Your task to perform on an android device: Search for "dell xps" on walmart.com, select the first entry, and add it to the cart. Image 0: 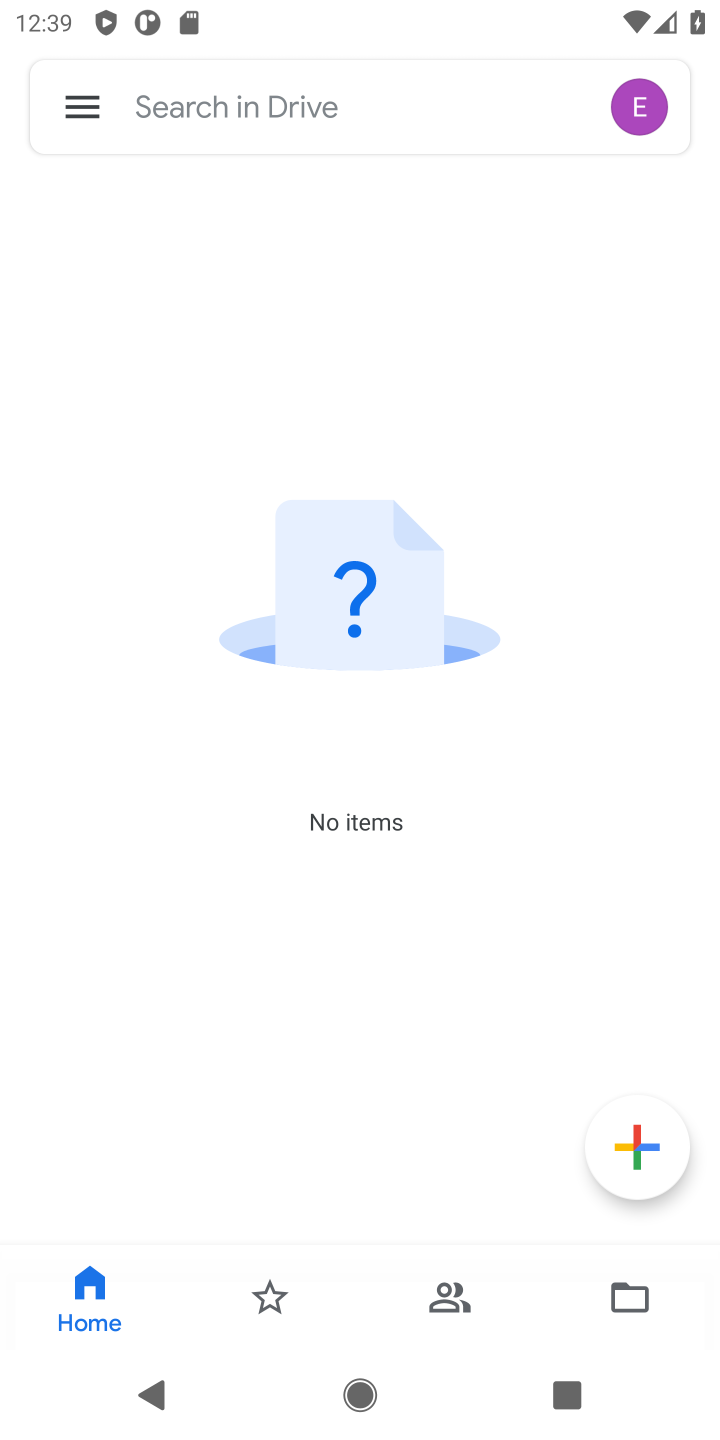
Step 0: press home button
Your task to perform on an android device: Search for "dell xps" on walmart.com, select the first entry, and add it to the cart. Image 1: 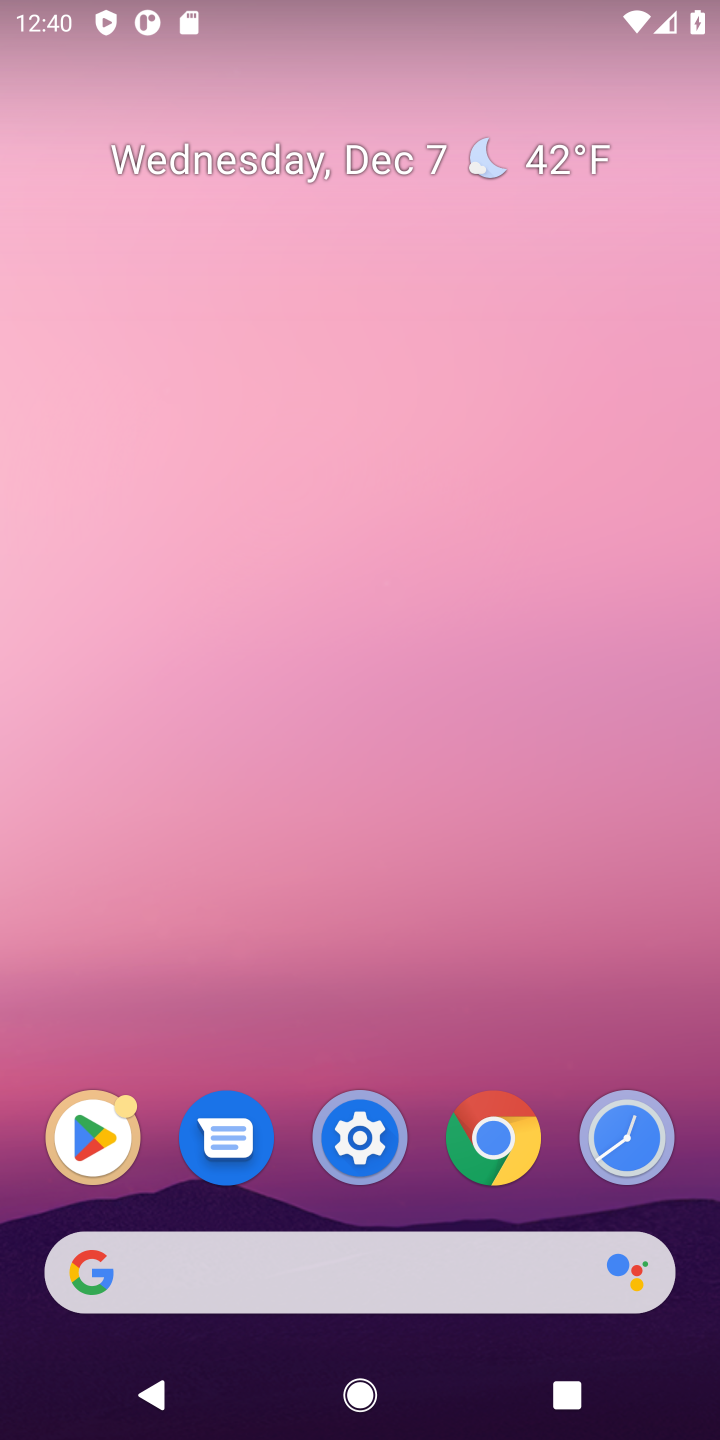
Step 1: click (420, 1243)
Your task to perform on an android device: Search for "dell xps" on walmart.com, select the first entry, and add it to the cart. Image 2: 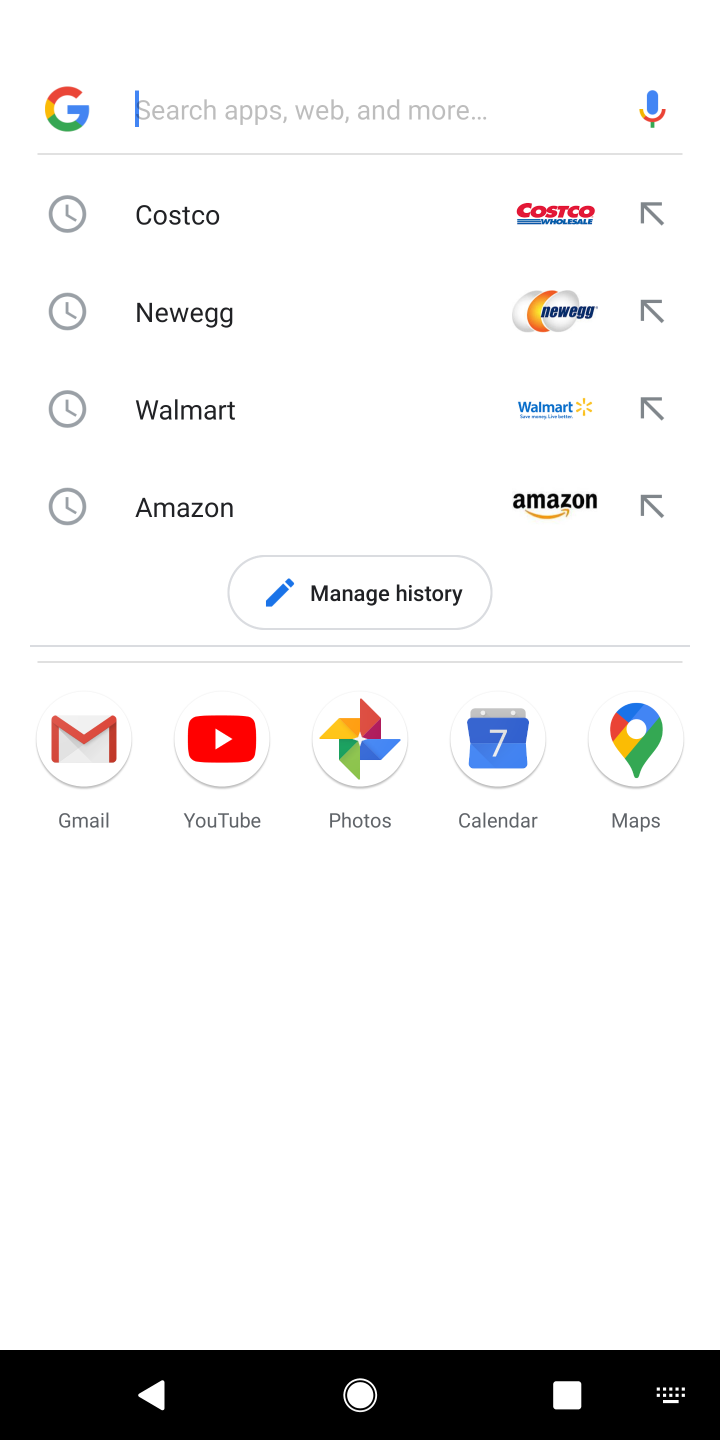
Step 2: type "walmart"
Your task to perform on an android device: Search for "dell xps" on walmart.com, select the first entry, and add it to the cart. Image 3: 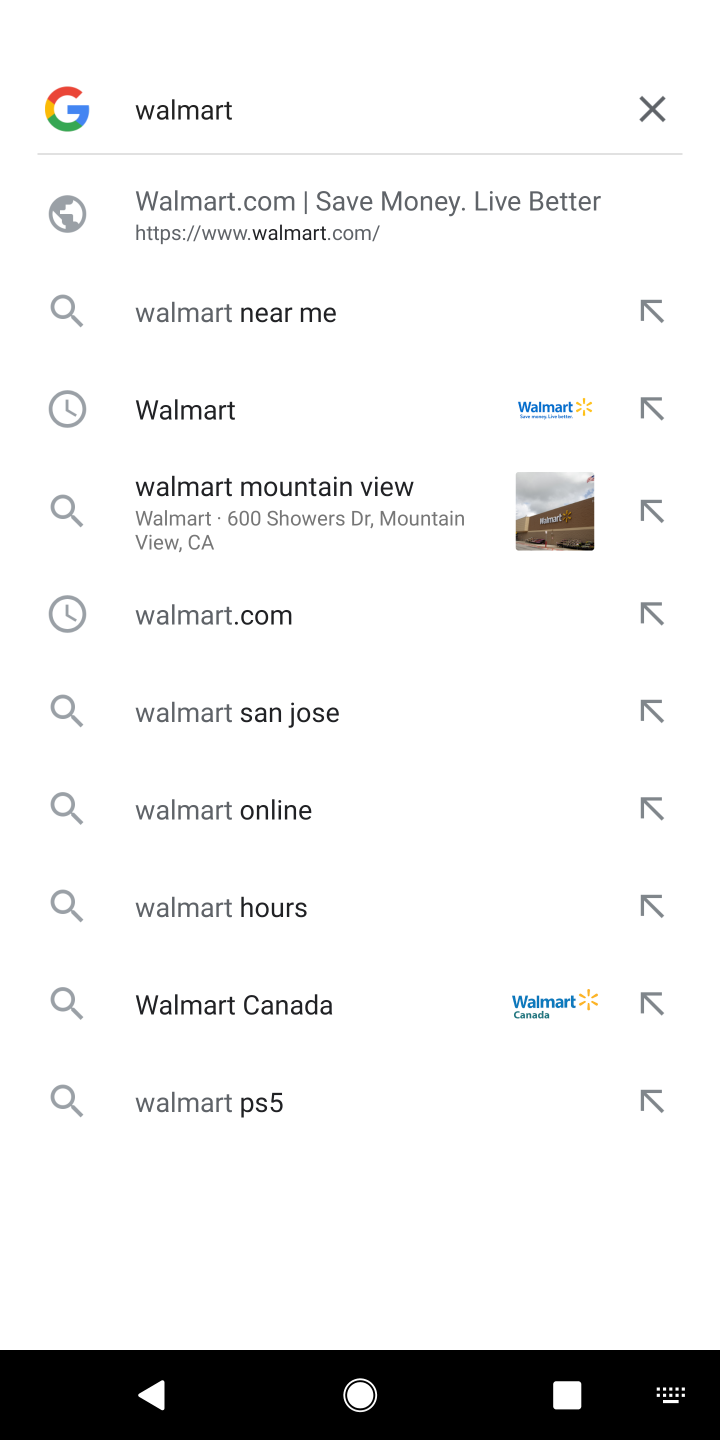
Step 3: click (198, 219)
Your task to perform on an android device: Search for "dell xps" on walmart.com, select the first entry, and add it to the cart. Image 4: 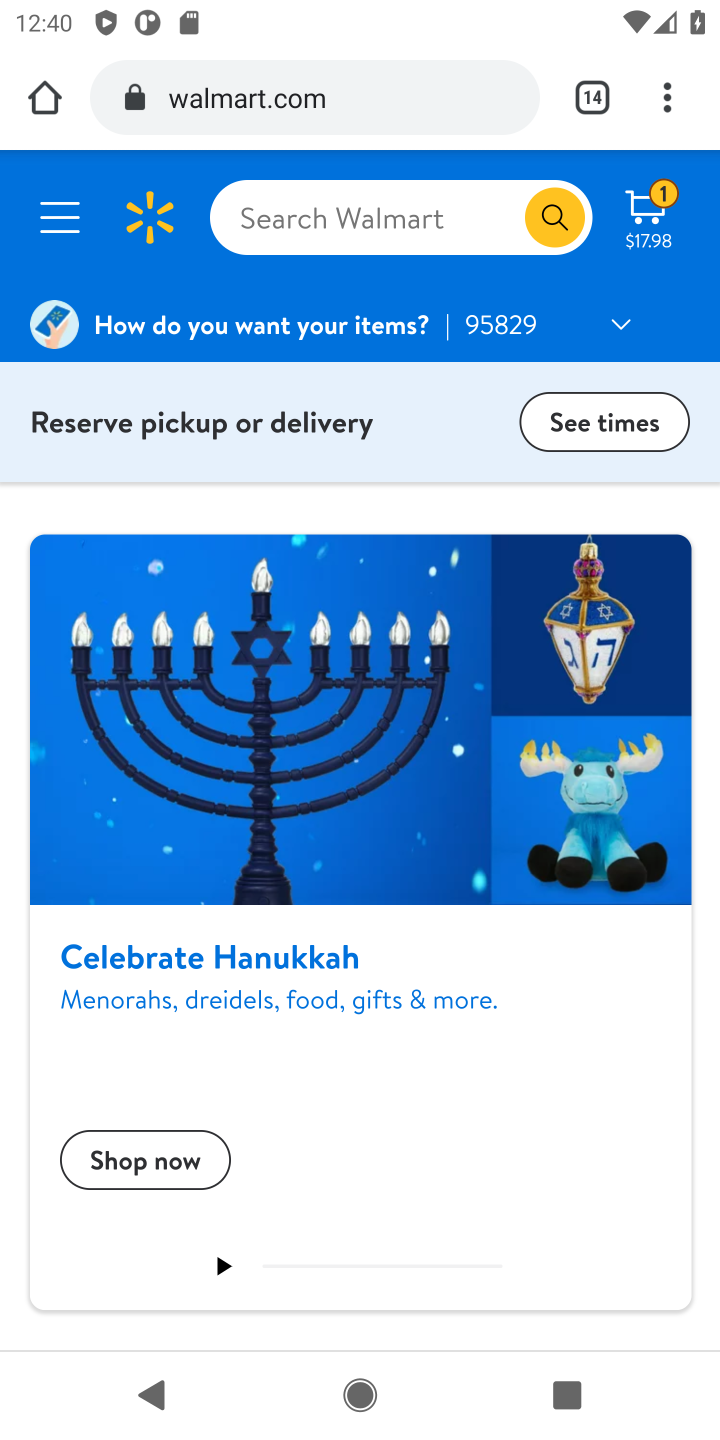
Step 4: click (336, 219)
Your task to perform on an android device: Search for "dell xps" on walmart.com, select the first entry, and add it to the cart. Image 5: 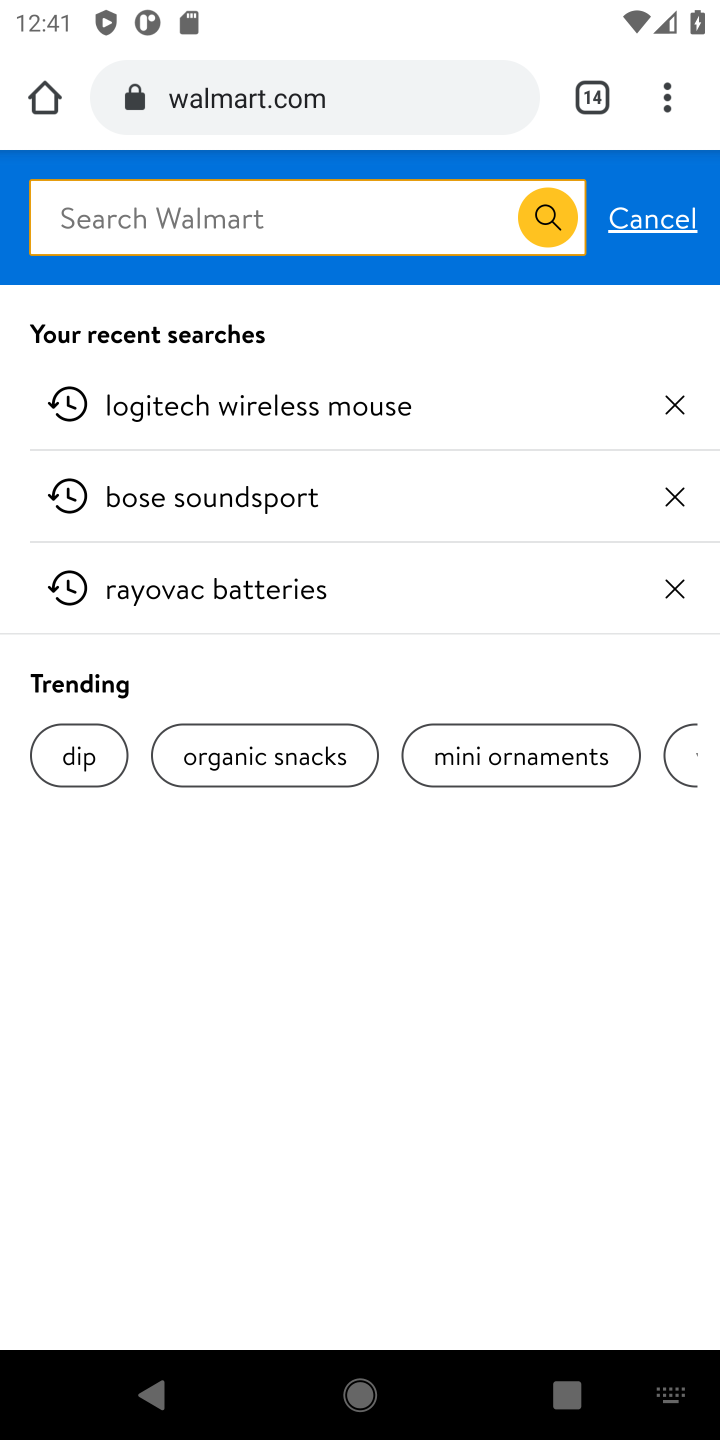
Step 5: type "dell xps"
Your task to perform on an android device: Search for "dell xps" on walmart.com, select the first entry, and add it to the cart. Image 6: 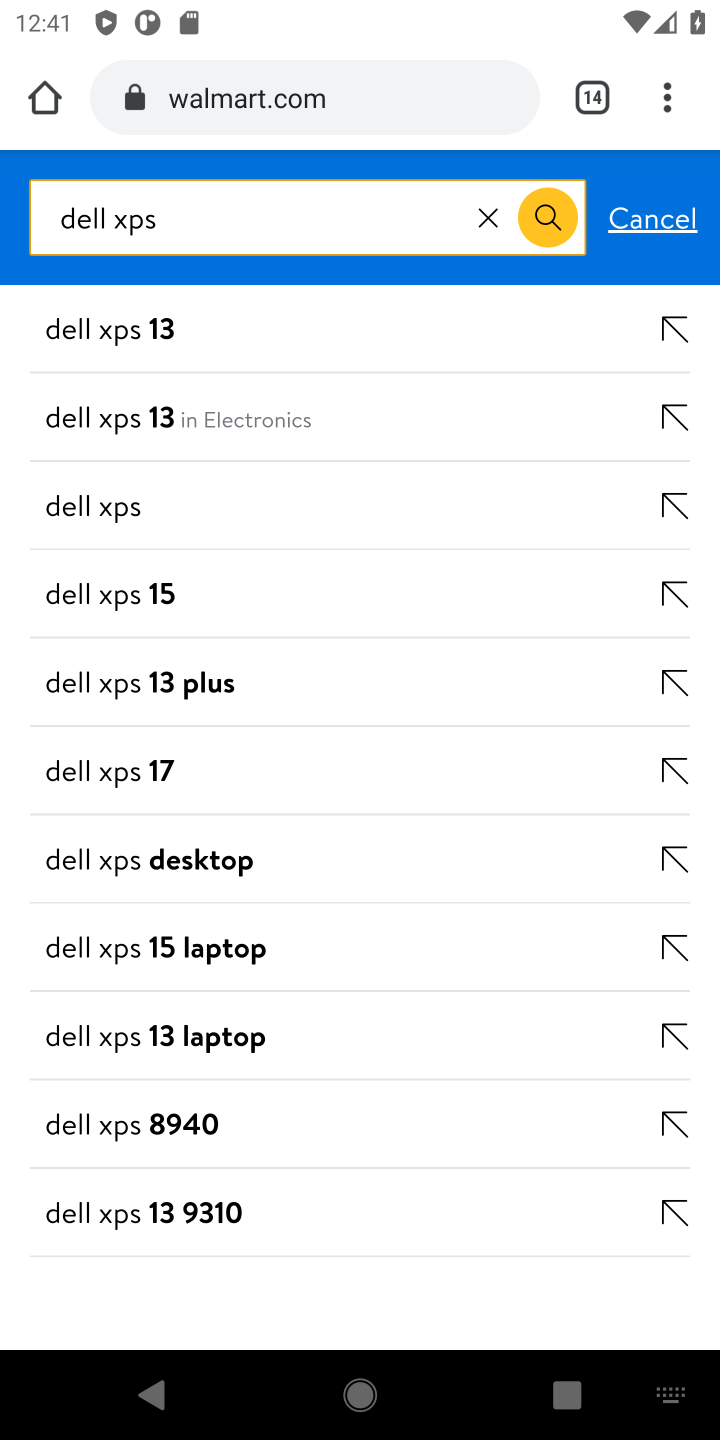
Step 6: click (271, 525)
Your task to perform on an android device: Search for "dell xps" on walmart.com, select the first entry, and add it to the cart. Image 7: 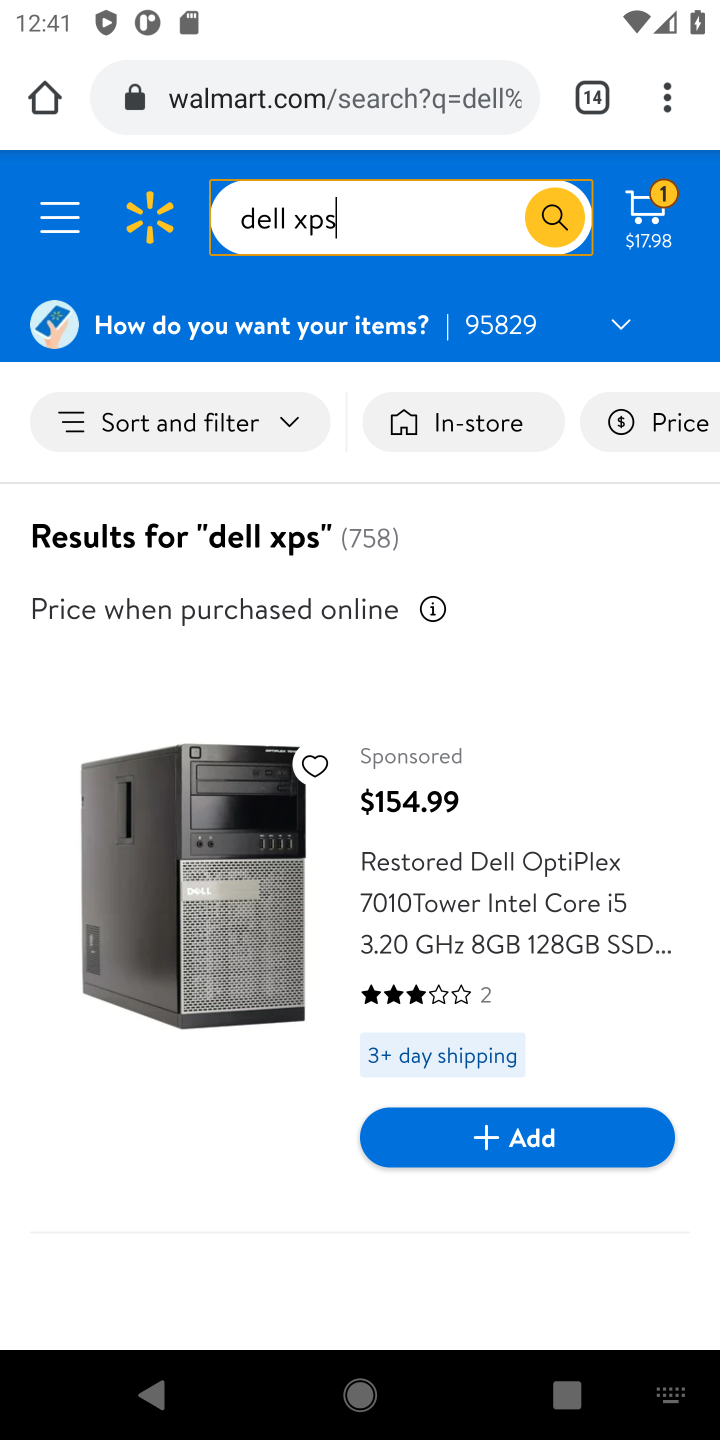
Step 7: click (493, 1128)
Your task to perform on an android device: Search for "dell xps" on walmart.com, select the first entry, and add it to the cart. Image 8: 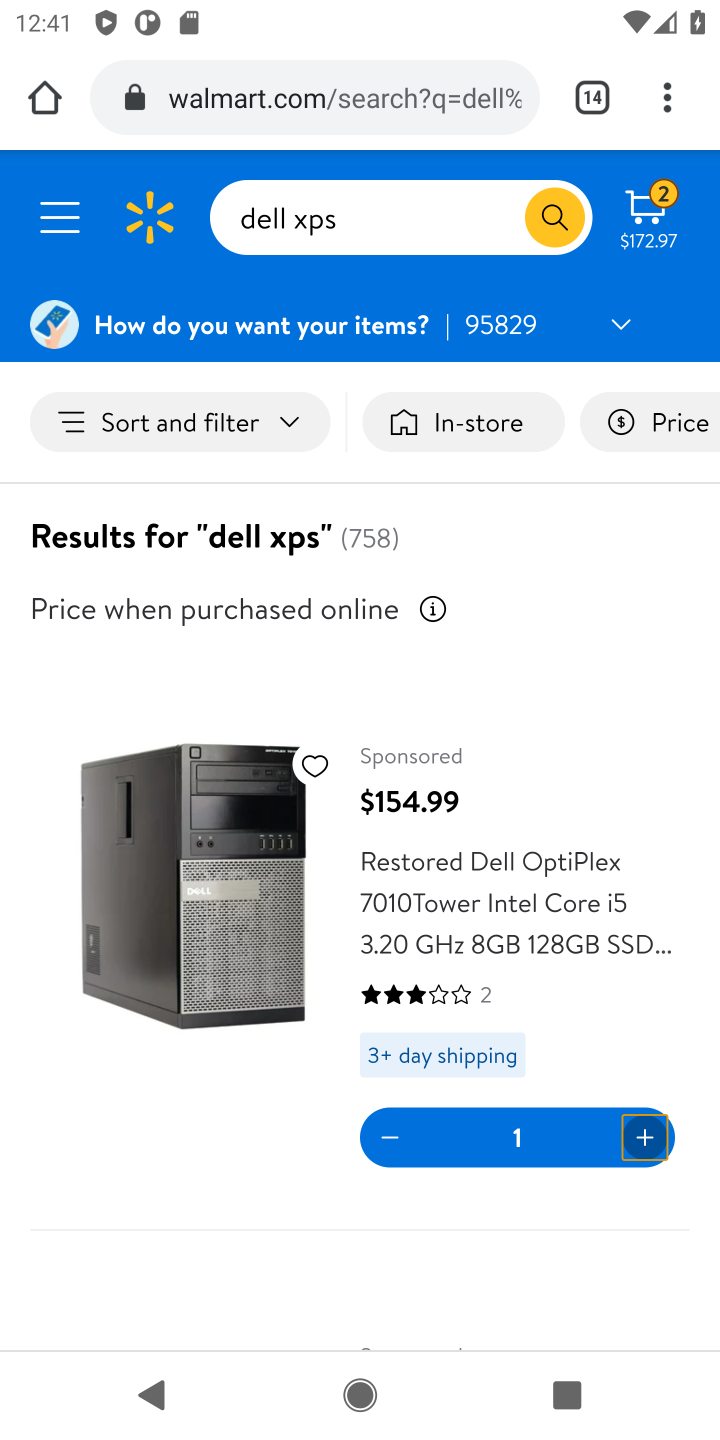
Step 8: task complete